Your task to perform on an android device: Open internet settings Image 0: 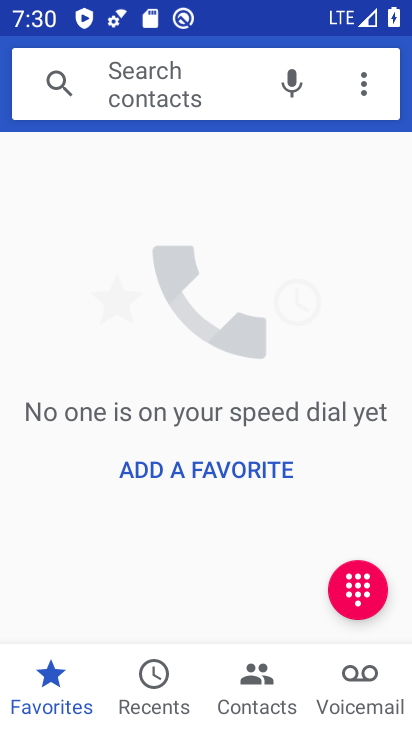
Step 0: press home button
Your task to perform on an android device: Open internet settings Image 1: 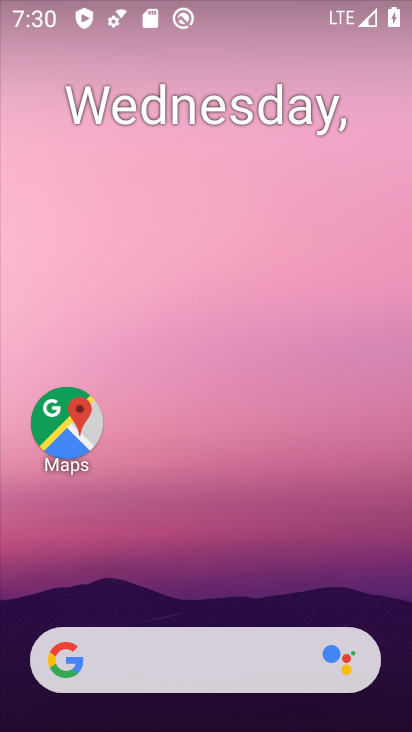
Step 1: drag from (208, 604) to (139, 0)
Your task to perform on an android device: Open internet settings Image 2: 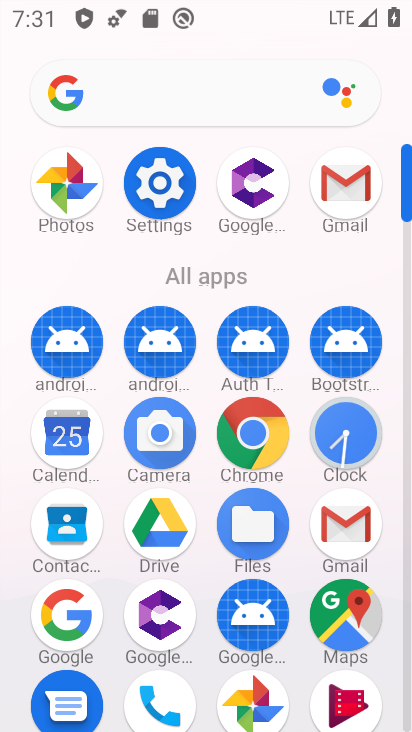
Step 2: click (152, 165)
Your task to perform on an android device: Open internet settings Image 3: 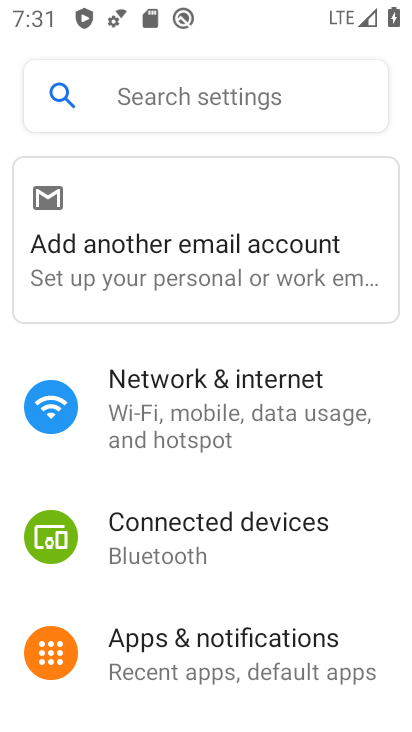
Step 3: click (171, 218)
Your task to perform on an android device: Open internet settings Image 4: 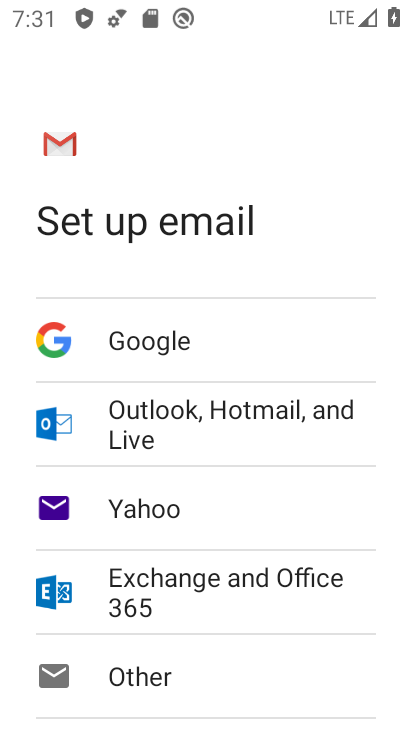
Step 4: press back button
Your task to perform on an android device: Open internet settings Image 5: 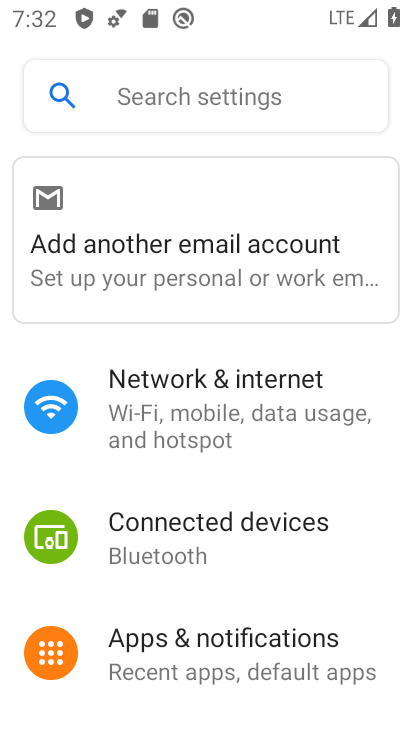
Step 5: click (80, 401)
Your task to perform on an android device: Open internet settings Image 6: 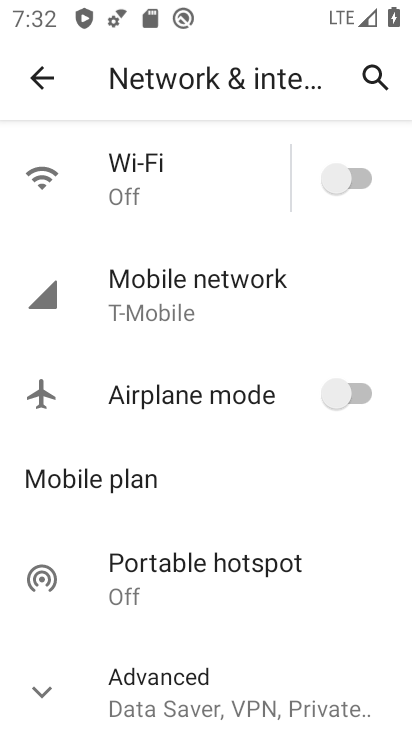
Step 6: click (142, 310)
Your task to perform on an android device: Open internet settings Image 7: 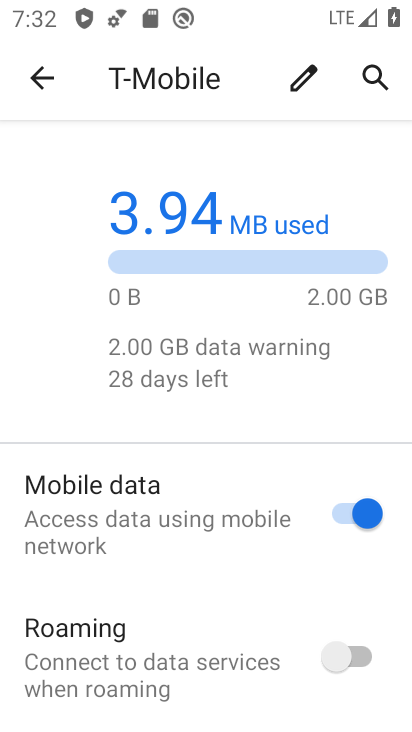
Step 7: task complete